Your task to perform on an android device: Turn off the flashlight Image 0: 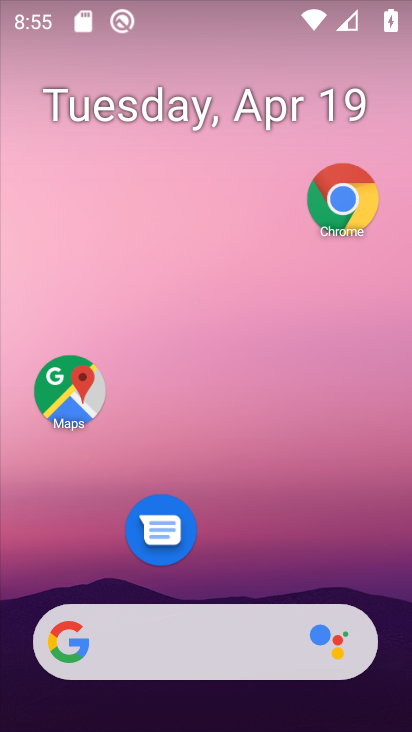
Step 0: click (206, 256)
Your task to perform on an android device: Turn off the flashlight Image 1: 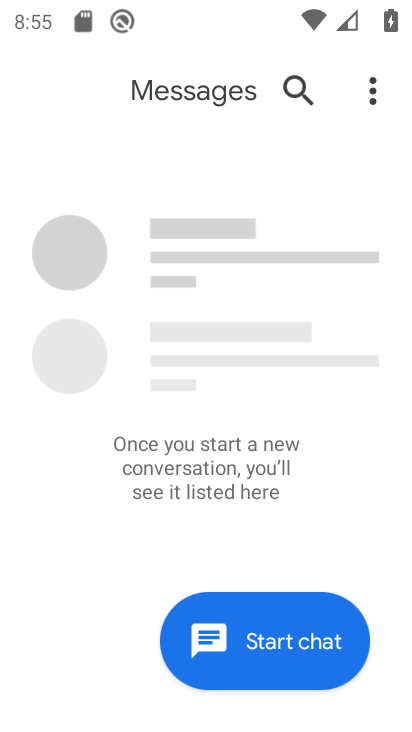
Step 1: press home button
Your task to perform on an android device: Turn off the flashlight Image 2: 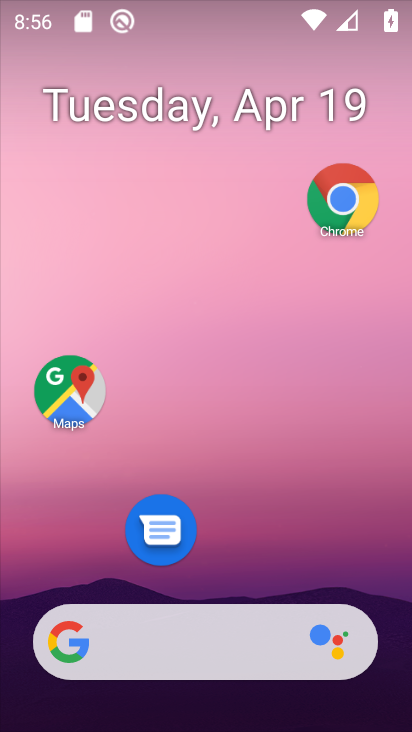
Step 2: drag from (218, 544) to (10, 556)
Your task to perform on an android device: Turn off the flashlight Image 3: 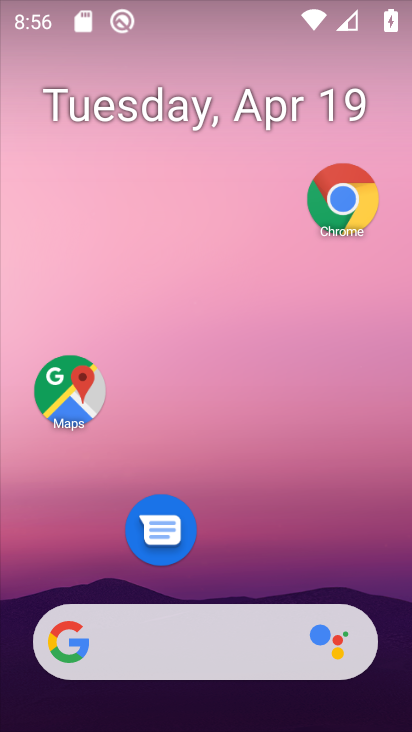
Step 3: drag from (225, 576) to (244, 12)
Your task to perform on an android device: Turn off the flashlight Image 4: 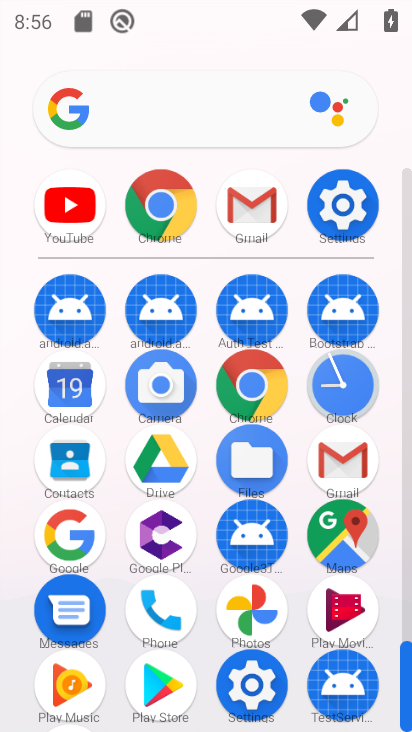
Step 4: click (345, 216)
Your task to perform on an android device: Turn off the flashlight Image 5: 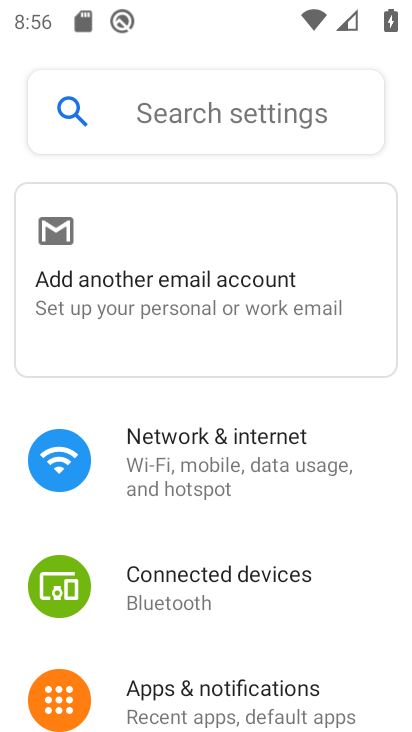
Step 5: click (190, 128)
Your task to perform on an android device: Turn off the flashlight Image 6: 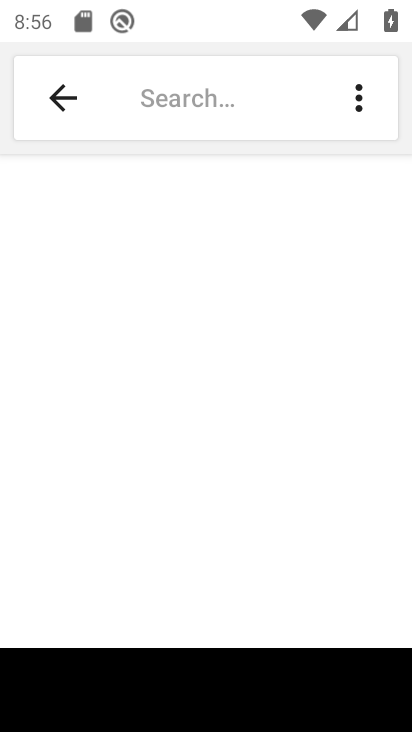
Step 6: type "flashlight"
Your task to perform on an android device: Turn off the flashlight Image 7: 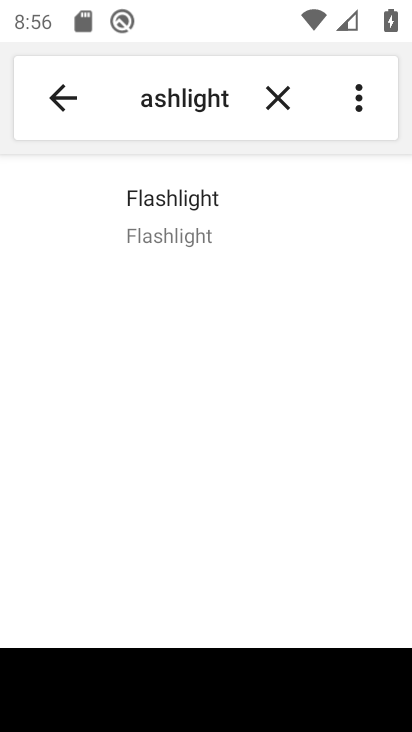
Step 7: click (172, 230)
Your task to perform on an android device: Turn off the flashlight Image 8: 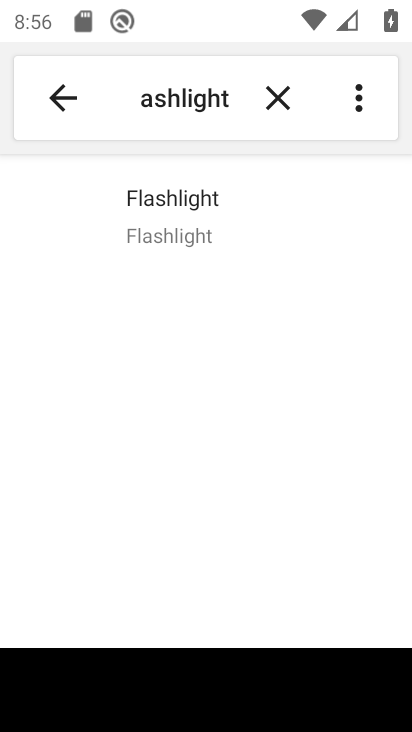
Step 8: click (191, 206)
Your task to perform on an android device: Turn off the flashlight Image 9: 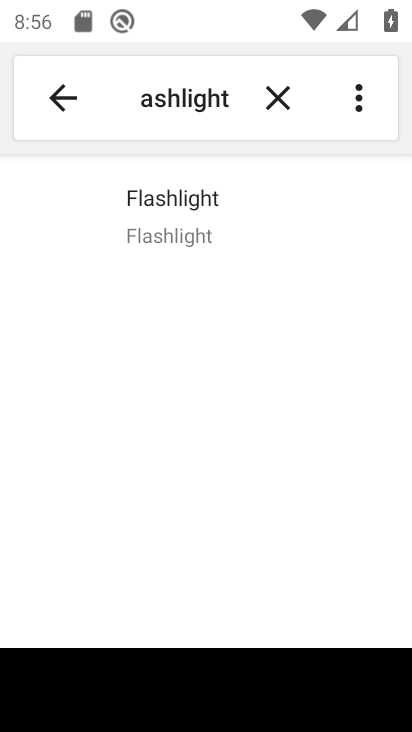
Step 9: task complete